Your task to perform on an android device: Go to notification settings Image 0: 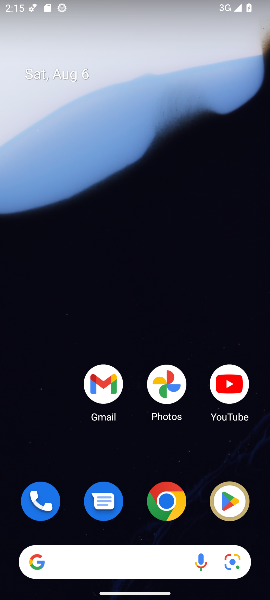
Step 0: press home button
Your task to perform on an android device: Go to notification settings Image 1: 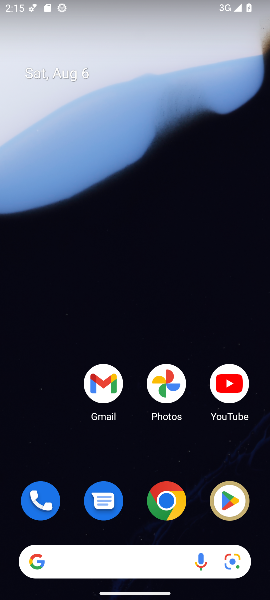
Step 1: press home button
Your task to perform on an android device: Go to notification settings Image 2: 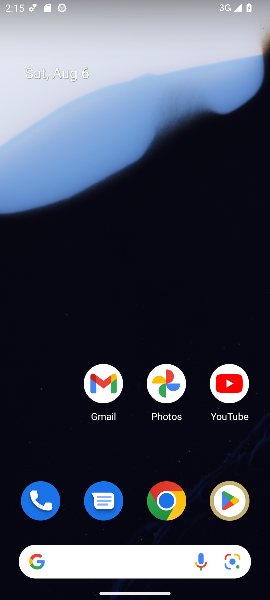
Step 2: drag from (127, 529) to (208, 90)
Your task to perform on an android device: Go to notification settings Image 3: 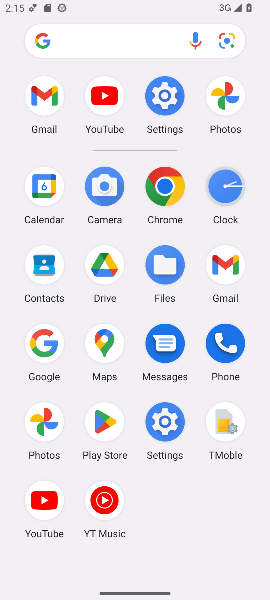
Step 3: click (161, 99)
Your task to perform on an android device: Go to notification settings Image 4: 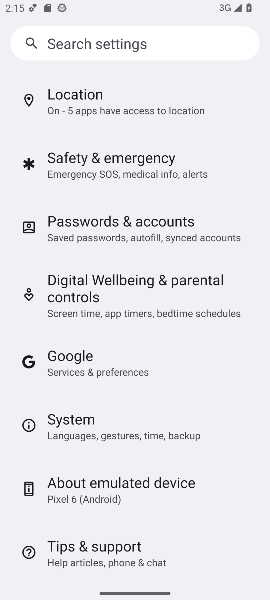
Step 4: drag from (183, 133) to (201, 534)
Your task to perform on an android device: Go to notification settings Image 5: 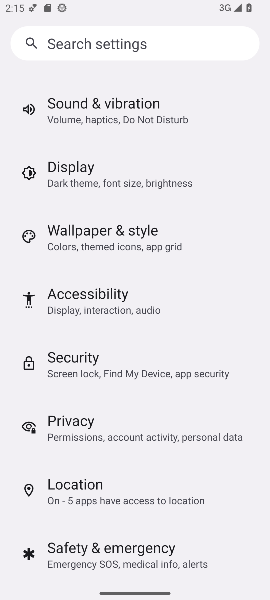
Step 5: drag from (182, 146) to (160, 520)
Your task to perform on an android device: Go to notification settings Image 6: 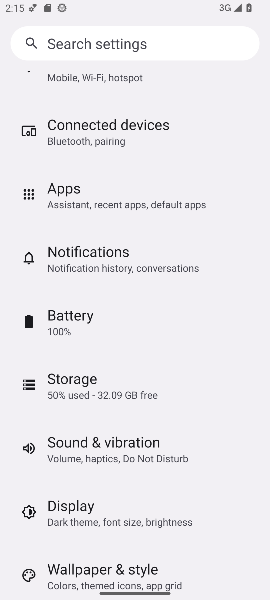
Step 6: click (80, 264)
Your task to perform on an android device: Go to notification settings Image 7: 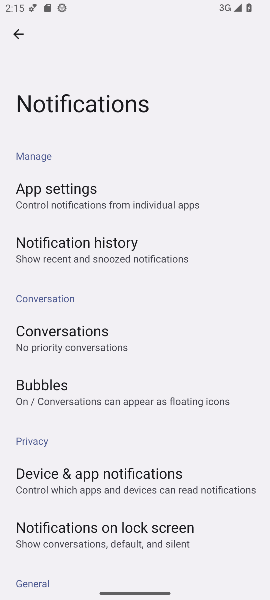
Step 7: task complete